Your task to perform on an android device: change notifications settings Image 0: 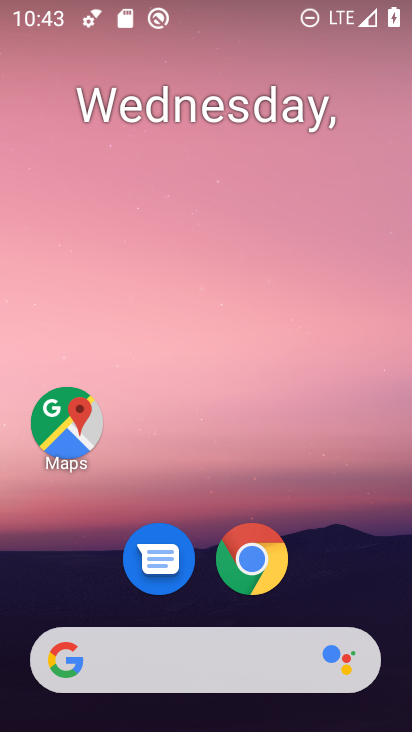
Step 0: drag from (347, 583) to (354, 244)
Your task to perform on an android device: change notifications settings Image 1: 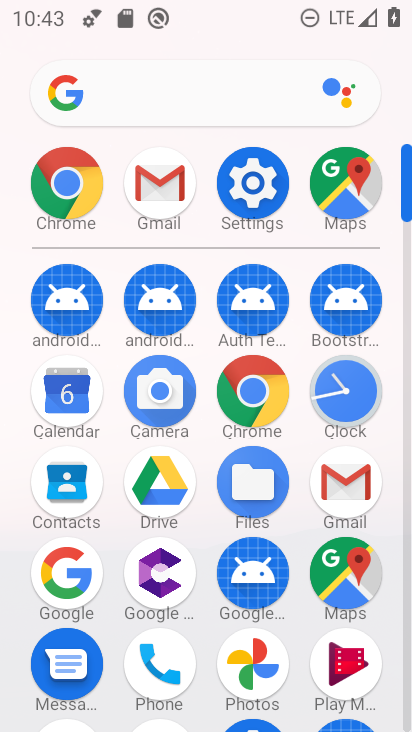
Step 1: click (262, 205)
Your task to perform on an android device: change notifications settings Image 2: 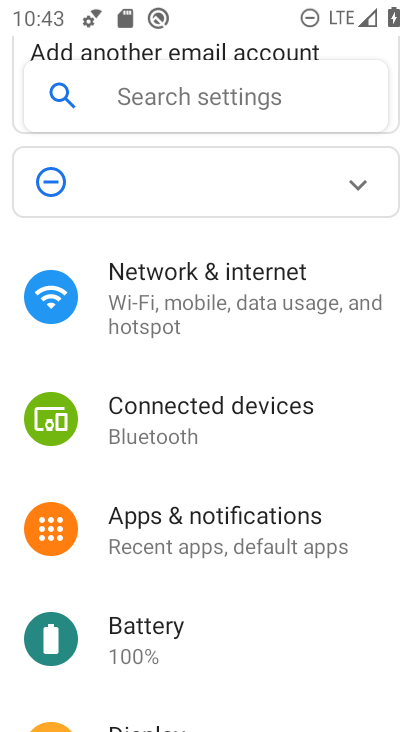
Step 2: click (239, 531)
Your task to perform on an android device: change notifications settings Image 3: 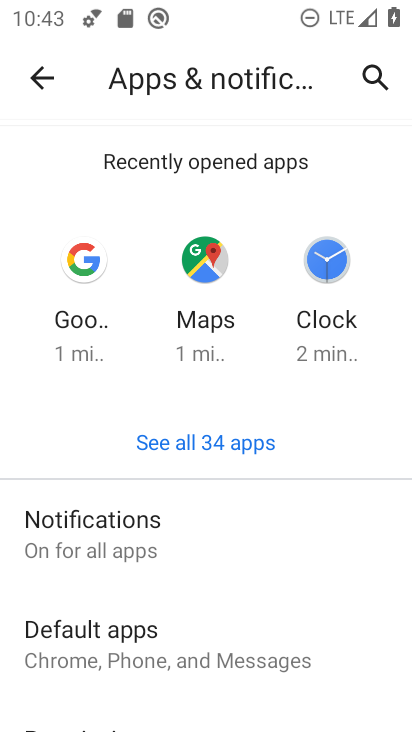
Step 3: drag from (302, 565) to (301, 422)
Your task to perform on an android device: change notifications settings Image 4: 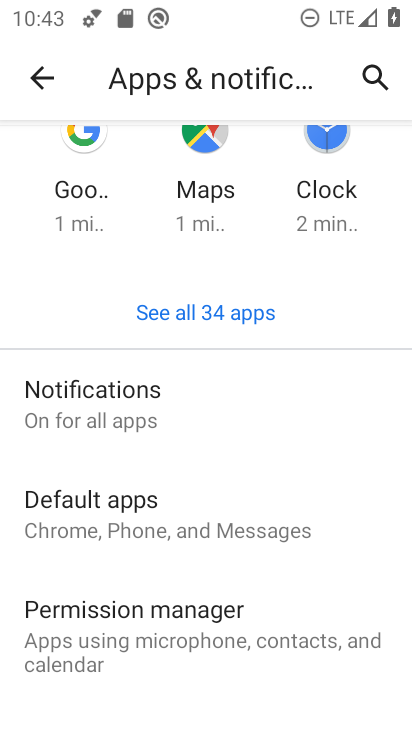
Step 4: click (196, 404)
Your task to perform on an android device: change notifications settings Image 5: 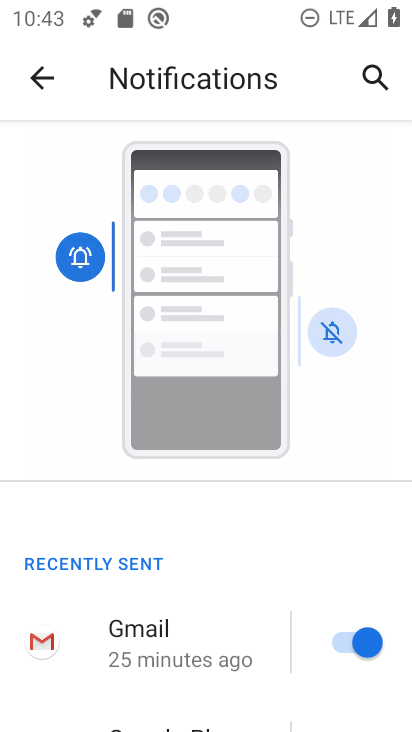
Step 5: drag from (258, 566) to (262, 377)
Your task to perform on an android device: change notifications settings Image 6: 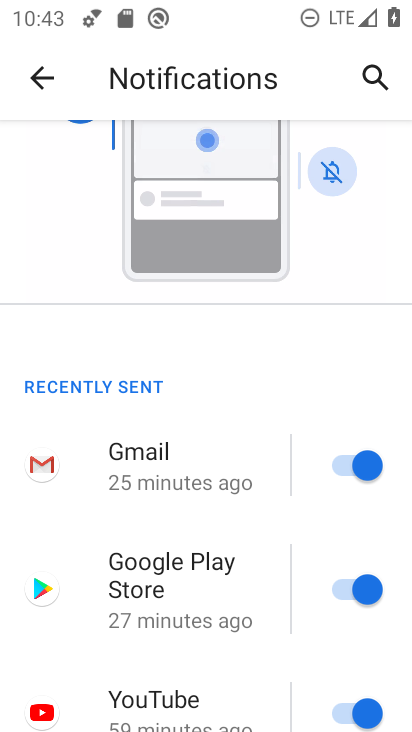
Step 6: drag from (270, 598) to (269, 416)
Your task to perform on an android device: change notifications settings Image 7: 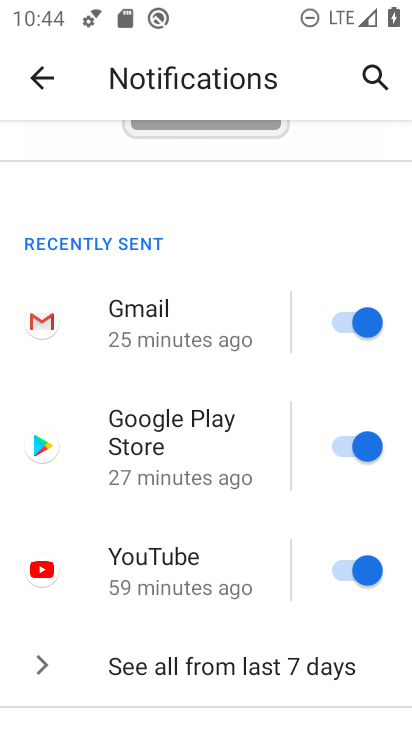
Step 7: click (359, 578)
Your task to perform on an android device: change notifications settings Image 8: 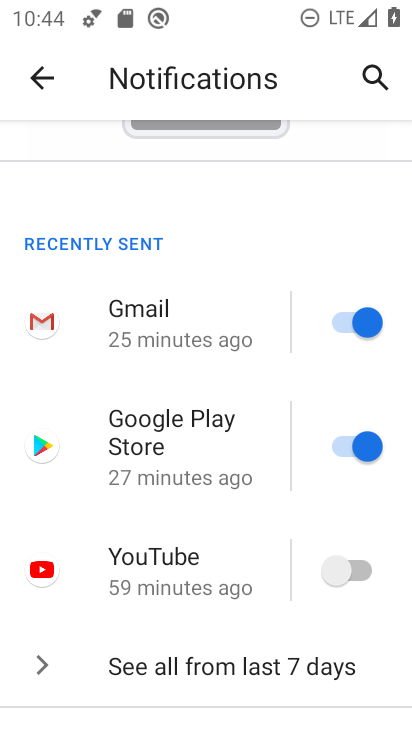
Step 8: click (364, 454)
Your task to perform on an android device: change notifications settings Image 9: 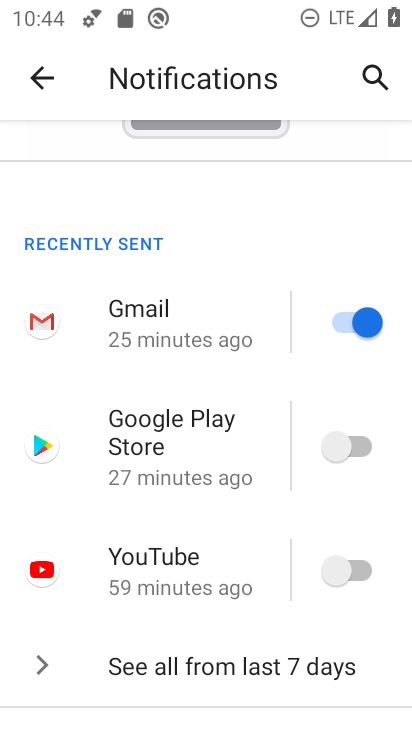
Step 9: click (367, 322)
Your task to perform on an android device: change notifications settings Image 10: 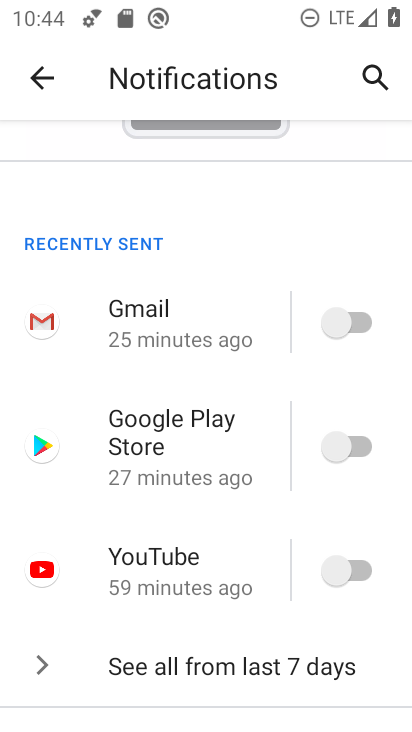
Step 10: task complete